Your task to perform on an android device: turn smart compose on in the gmail app Image 0: 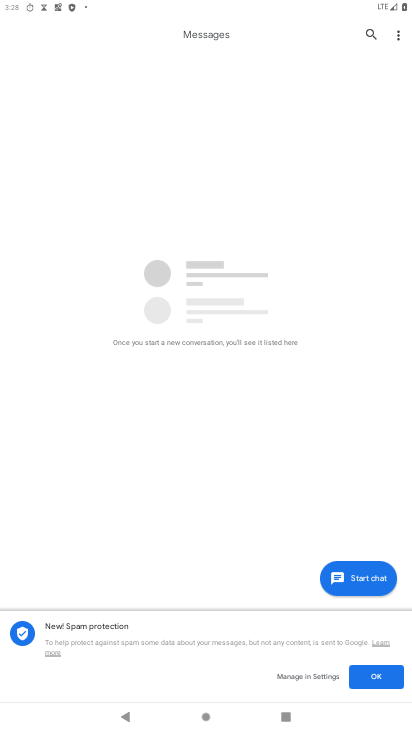
Step 0: press home button
Your task to perform on an android device: turn smart compose on in the gmail app Image 1: 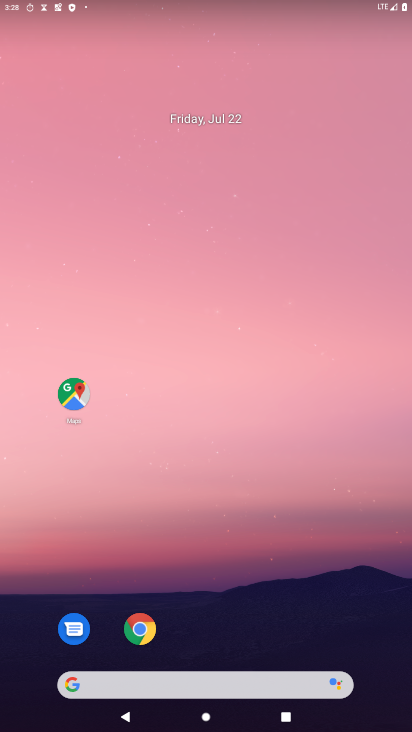
Step 1: drag from (319, 686) to (330, 187)
Your task to perform on an android device: turn smart compose on in the gmail app Image 2: 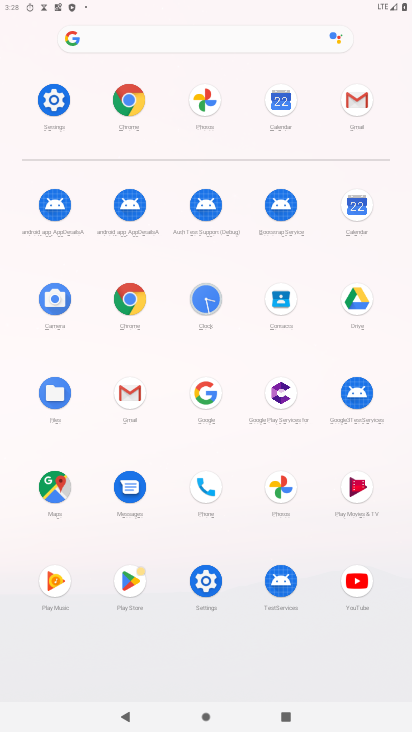
Step 2: click (131, 388)
Your task to perform on an android device: turn smart compose on in the gmail app Image 3: 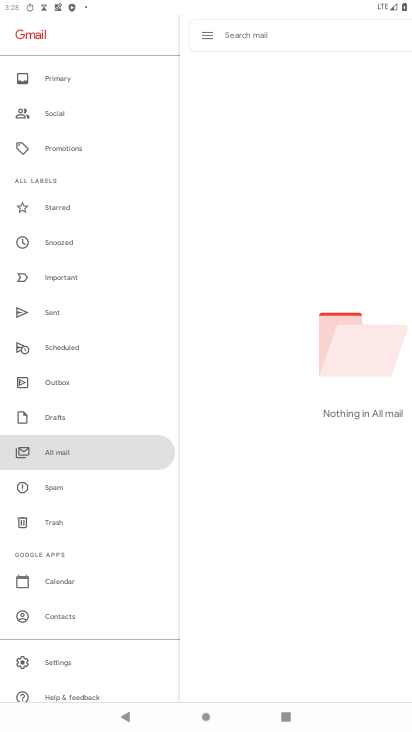
Step 3: click (56, 662)
Your task to perform on an android device: turn smart compose on in the gmail app Image 4: 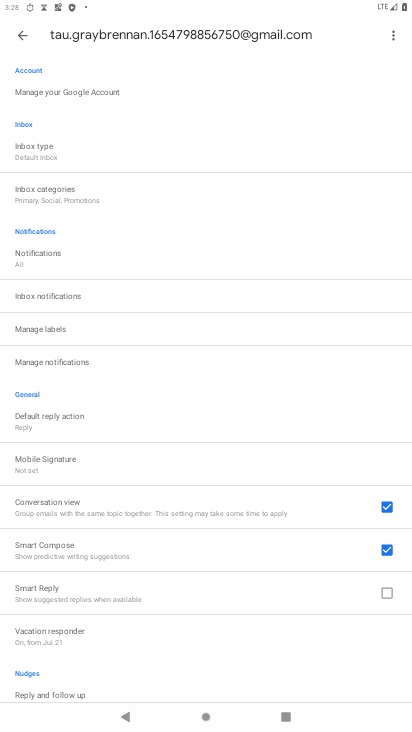
Step 4: task complete